Your task to perform on an android device: Turn on the flashlight Image 0: 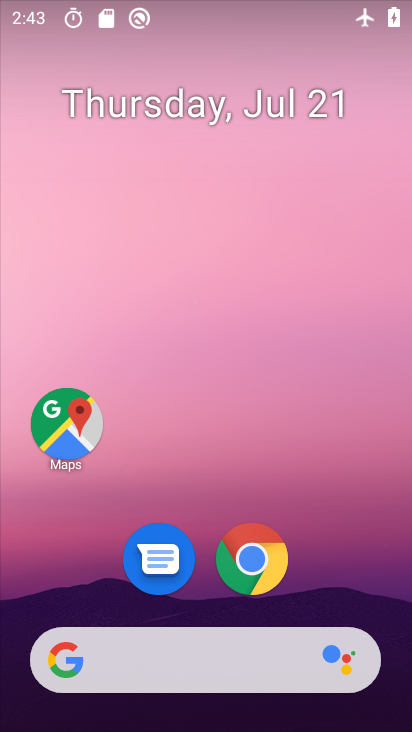
Step 0: drag from (258, 6) to (254, 276)
Your task to perform on an android device: Turn on the flashlight Image 1: 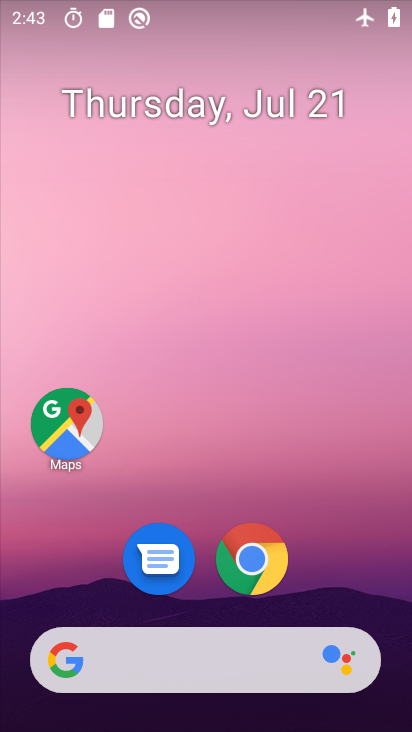
Step 1: drag from (245, 5) to (243, 370)
Your task to perform on an android device: Turn on the flashlight Image 2: 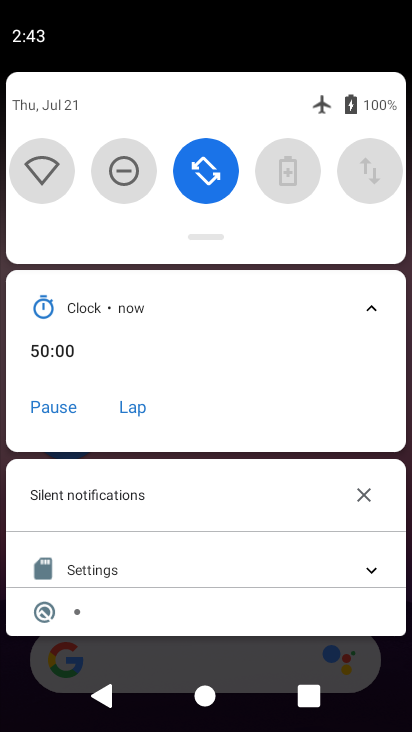
Step 2: drag from (247, 86) to (252, 315)
Your task to perform on an android device: Turn on the flashlight Image 3: 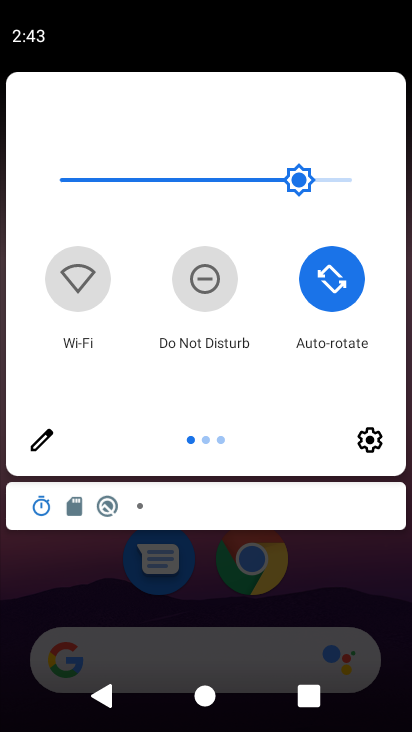
Step 3: click (53, 445)
Your task to perform on an android device: Turn on the flashlight Image 4: 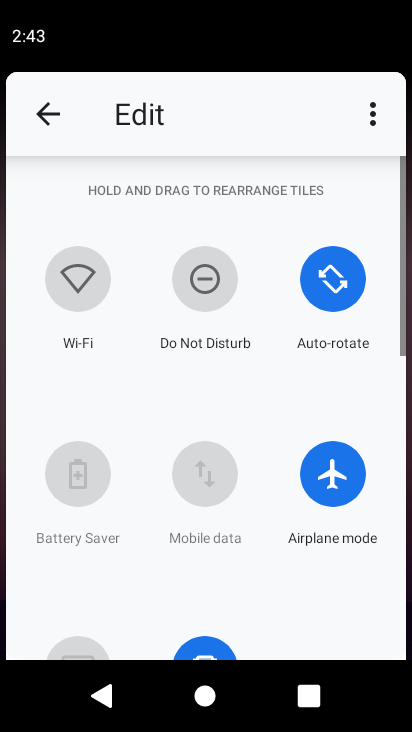
Step 4: task complete